Your task to perform on an android device: Open Google Image 0: 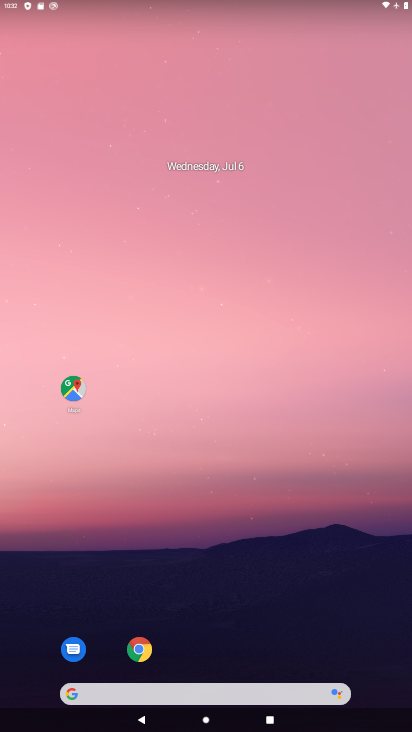
Step 0: drag from (384, 679) to (302, 172)
Your task to perform on an android device: Open Google Image 1: 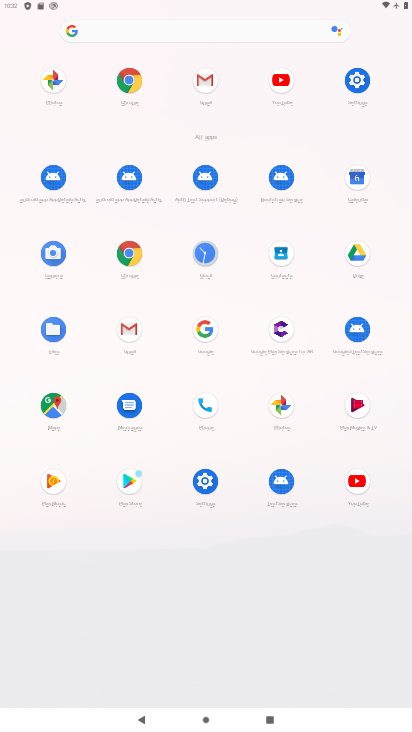
Step 1: click (200, 328)
Your task to perform on an android device: Open Google Image 2: 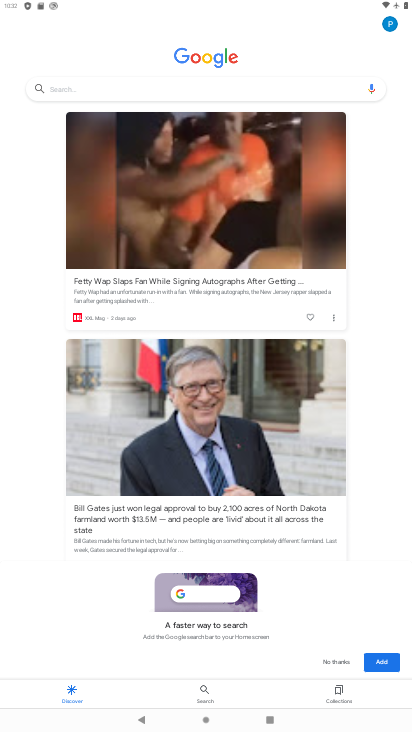
Step 2: task complete